Your task to perform on an android device: Open Google Chrome and click the shortcut for Amazon.com Image 0: 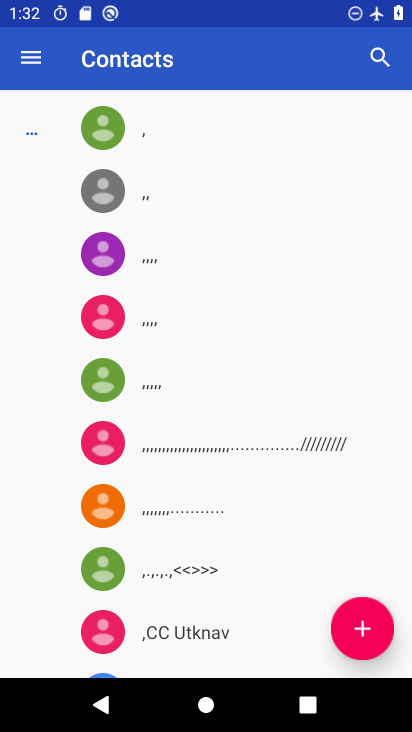
Step 0: press home button
Your task to perform on an android device: Open Google Chrome and click the shortcut for Amazon.com Image 1: 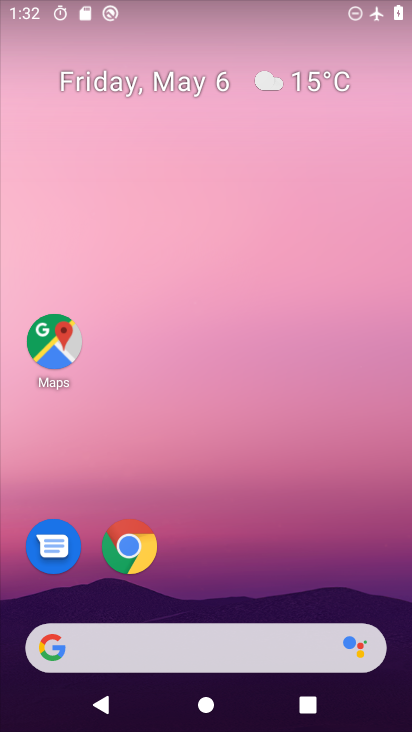
Step 1: click (142, 539)
Your task to perform on an android device: Open Google Chrome and click the shortcut for Amazon.com Image 2: 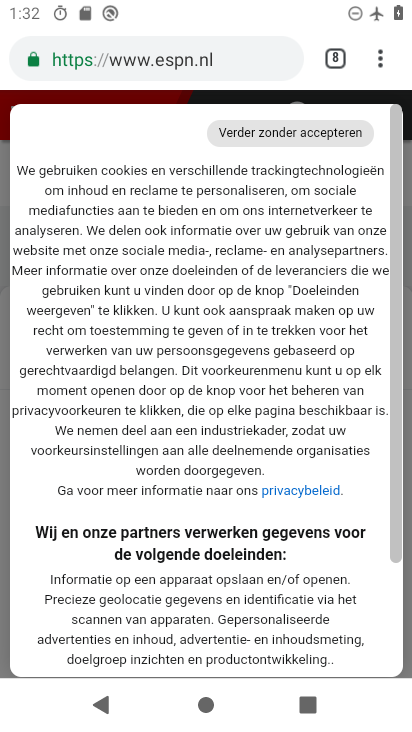
Step 2: click (329, 57)
Your task to perform on an android device: Open Google Chrome and click the shortcut for Amazon.com Image 3: 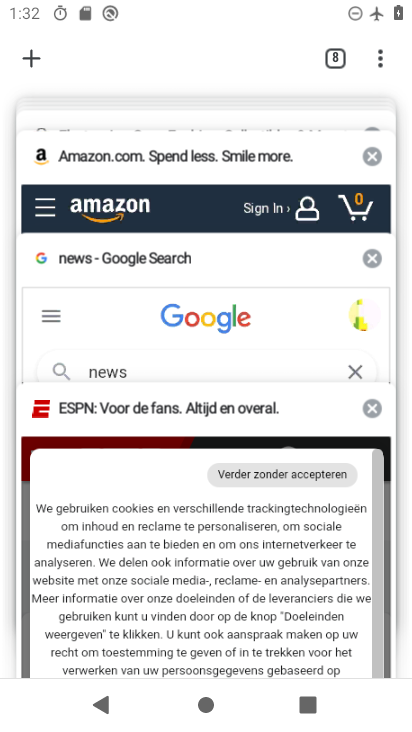
Step 3: click (102, 163)
Your task to perform on an android device: Open Google Chrome and click the shortcut for Amazon.com Image 4: 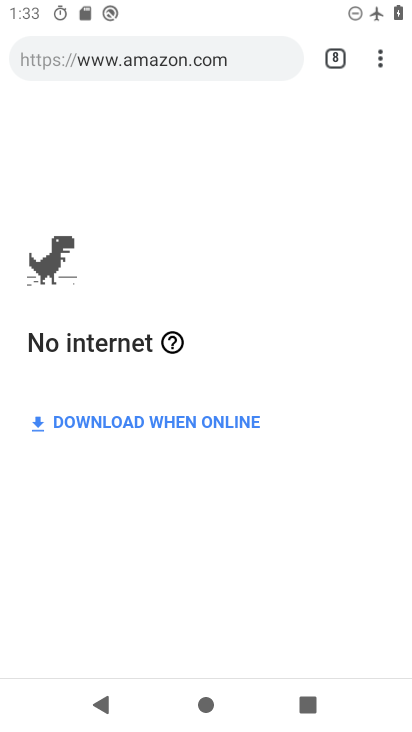
Step 4: task complete